Your task to perform on an android device: Toggle the flashlight Image 0: 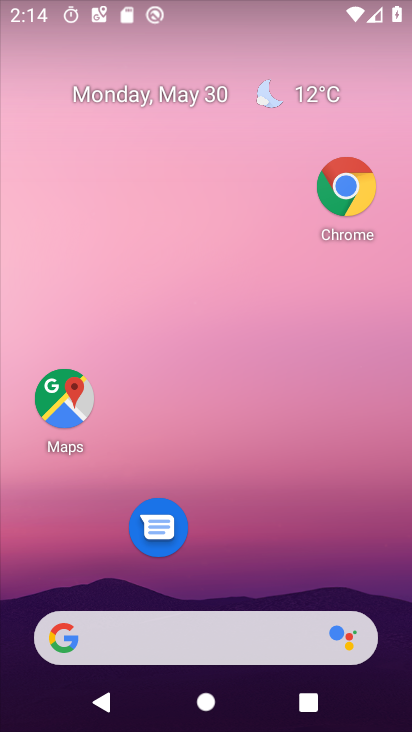
Step 0: drag from (221, 579) to (287, 117)
Your task to perform on an android device: Toggle the flashlight Image 1: 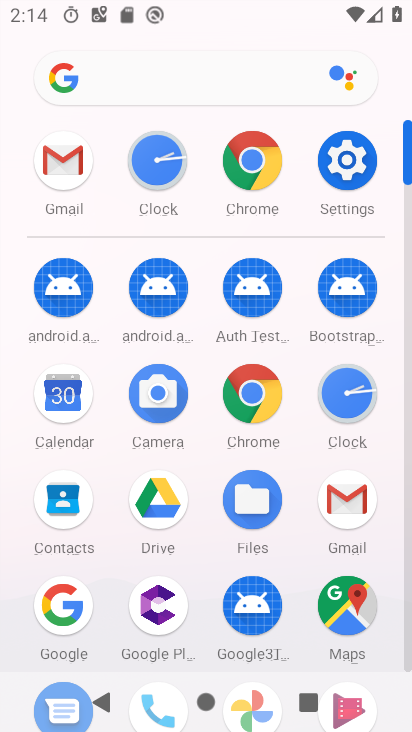
Step 1: click (349, 162)
Your task to perform on an android device: Toggle the flashlight Image 2: 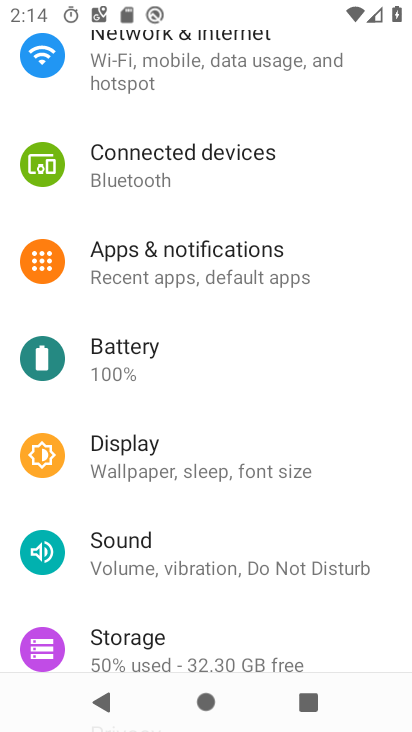
Step 2: drag from (233, 168) to (263, 585)
Your task to perform on an android device: Toggle the flashlight Image 3: 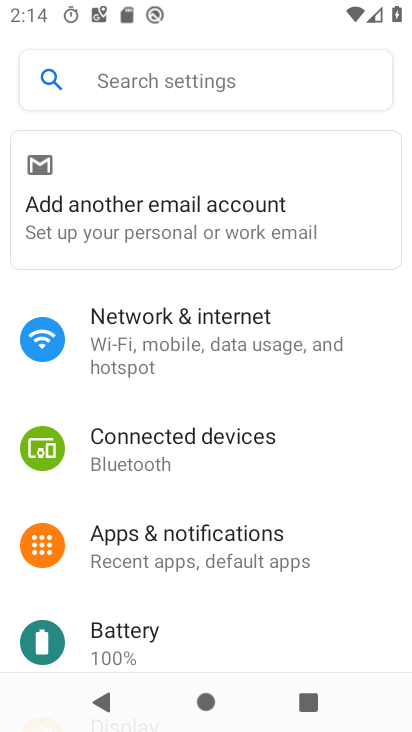
Step 3: click (125, 87)
Your task to perform on an android device: Toggle the flashlight Image 4: 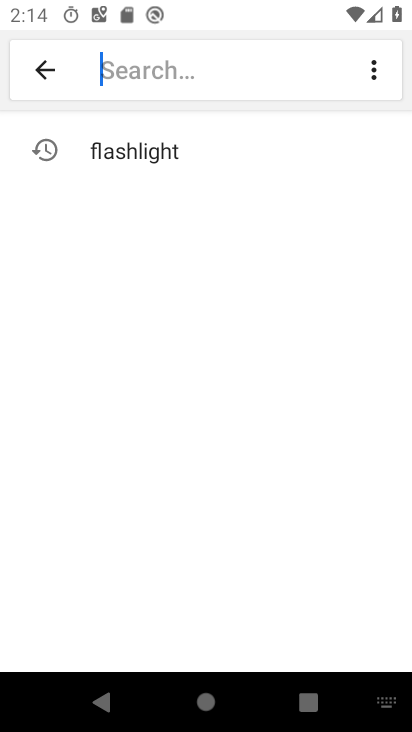
Step 4: click (184, 155)
Your task to perform on an android device: Toggle the flashlight Image 5: 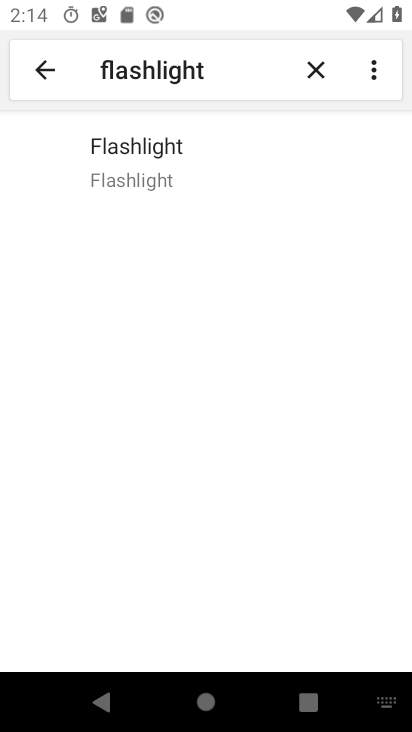
Step 5: task complete